Your task to perform on an android device: allow notifications from all sites in the chrome app Image 0: 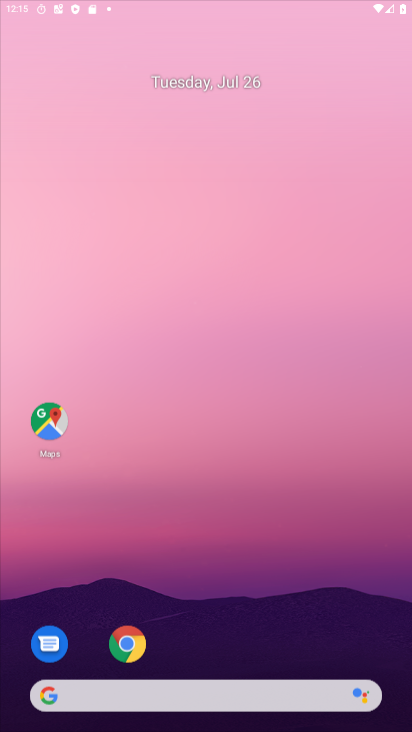
Step 0: drag from (161, 276) to (97, 69)
Your task to perform on an android device: allow notifications from all sites in the chrome app Image 1: 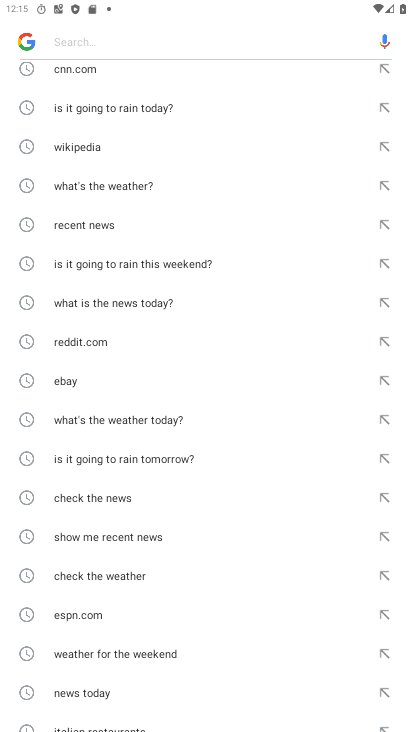
Step 1: press home button
Your task to perform on an android device: allow notifications from all sites in the chrome app Image 2: 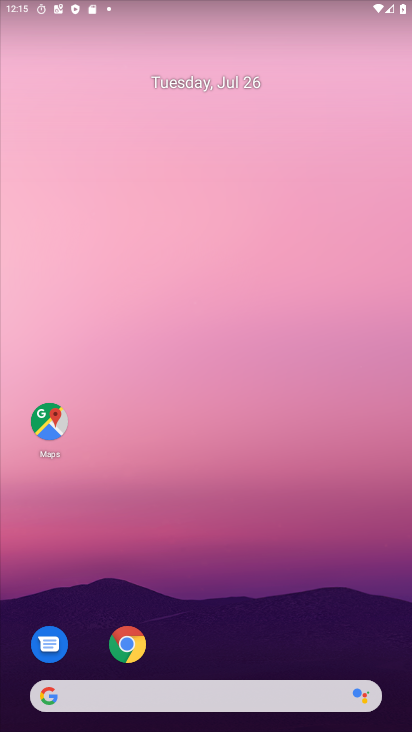
Step 2: drag from (161, 649) to (272, 18)
Your task to perform on an android device: allow notifications from all sites in the chrome app Image 3: 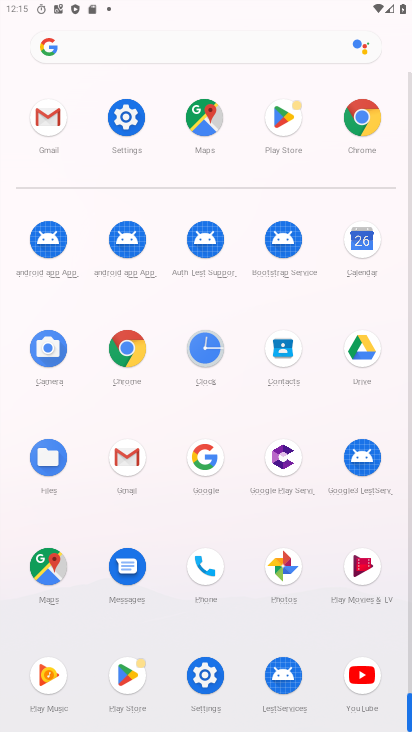
Step 3: click (123, 351)
Your task to perform on an android device: allow notifications from all sites in the chrome app Image 4: 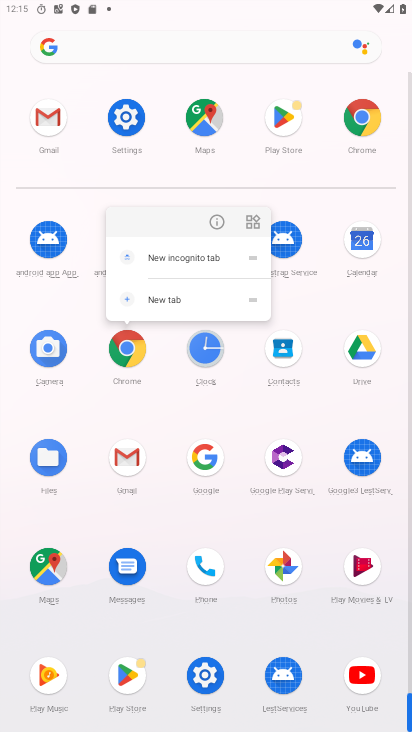
Step 4: click (123, 349)
Your task to perform on an android device: allow notifications from all sites in the chrome app Image 5: 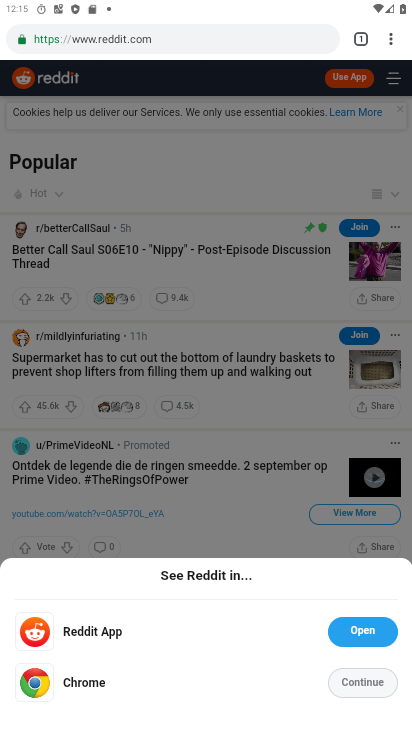
Step 5: drag from (191, 421) to (212, 662)
Your task to perform on an android device: allow notifications from all sites in the chrome app Image 6: 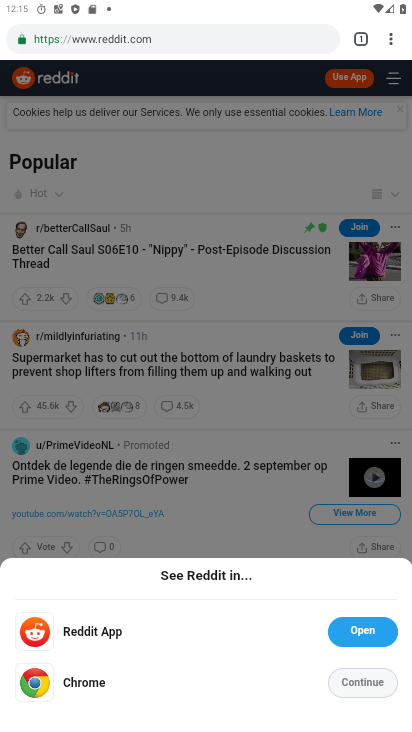
Step 6: drag from (199, 93) to (210, 565)
Your task to perform on an android device: allow notifications from all sites in the chrome app Image 7: 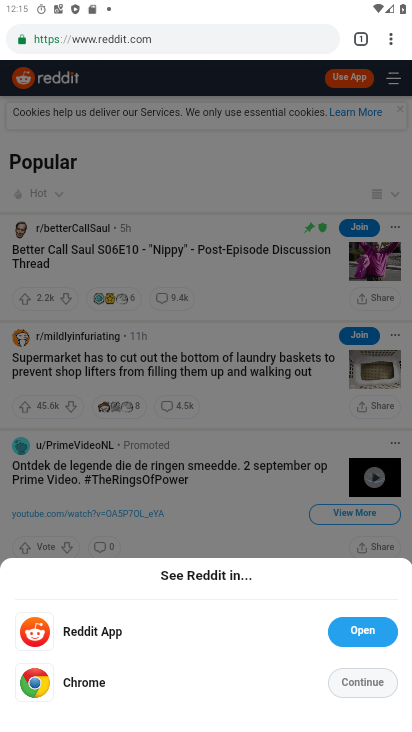
Step 7: click (374, 21)
Your task to perform on an android device: allow notifications from all sites in the chrome app Image 8: 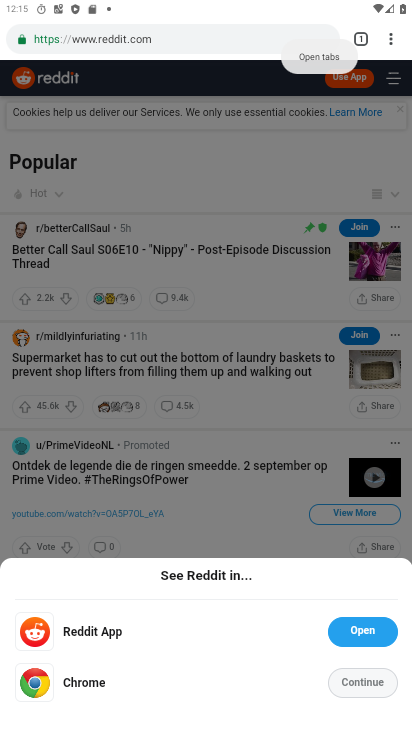
Step 8: drag from (390, 35) to (247, 468)
Your task to perform on an android device: allow notifications from all sites in the chrome app Image 9: 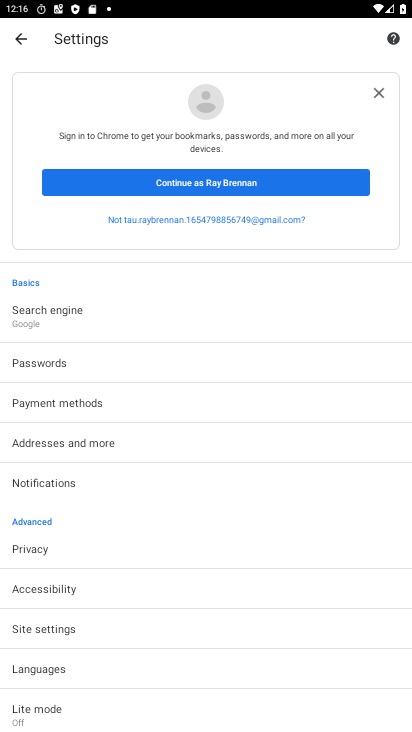
Step 9: drag from (110, 542) to (63, 226)
Your task to perform on an android device: allow notifications from all sites in the chrome app Image 10: 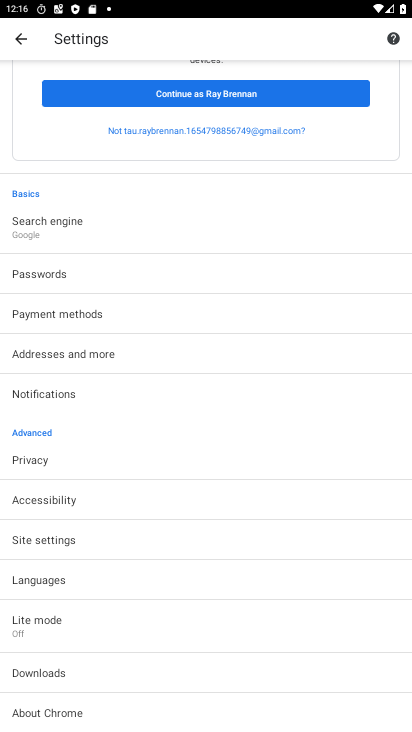
Step 10: click (58, 545)
Your task to perform on an android device: allow notifications from all sites in the chrome app Image 11: 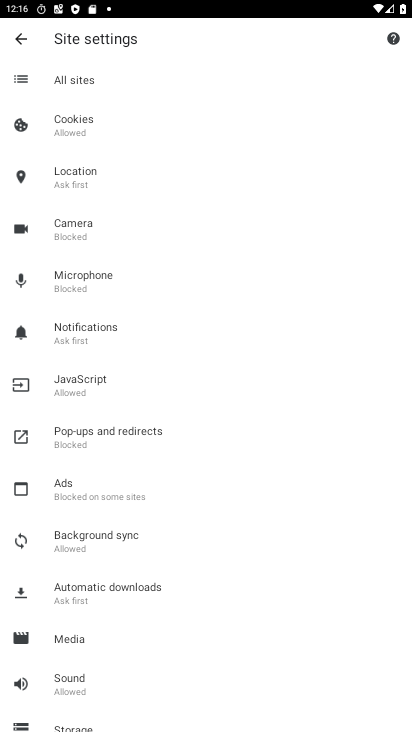
Step 11: click (53, 330)
Your task to perform on an android device: allow notifications from all sites in the chrome app Image 12: 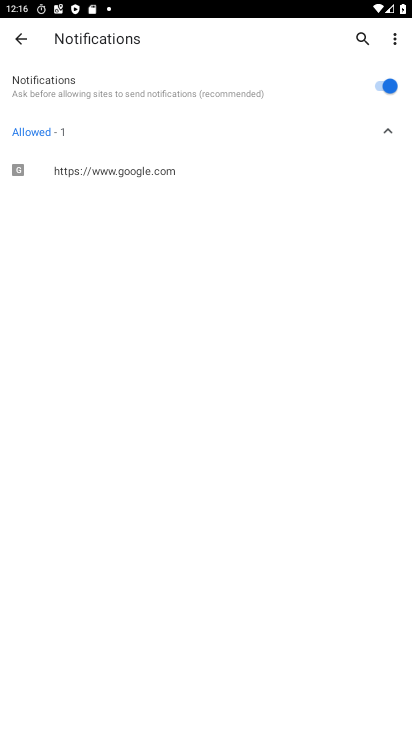
Step 12: task complete